Your task to perform on an android device: turn on translation in the chrome app Image 0: 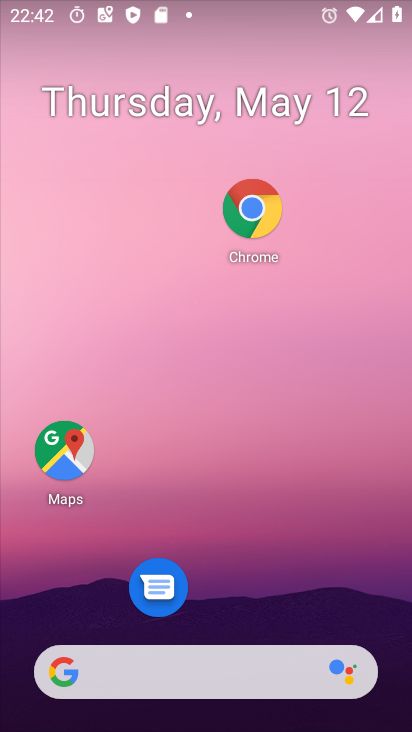
Step 0: drag from (318, 387) to (328, 3)
Your task to perform on an android device: turn on translation in the chrome app Image 1: 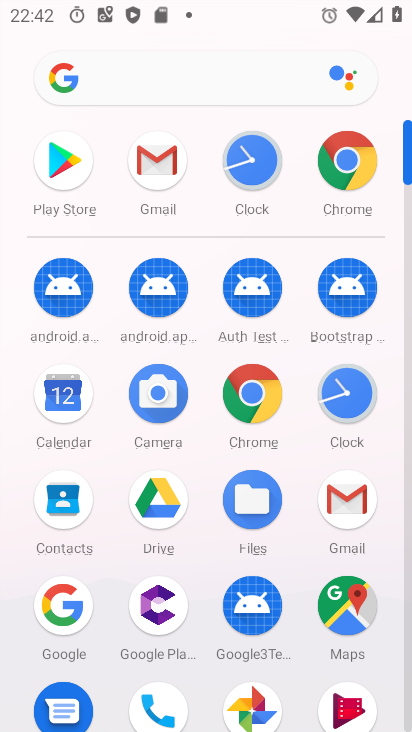
Step 1: click (342, 161)
Your task to perform on an android device: turn on translation in the chrome app Image 2: 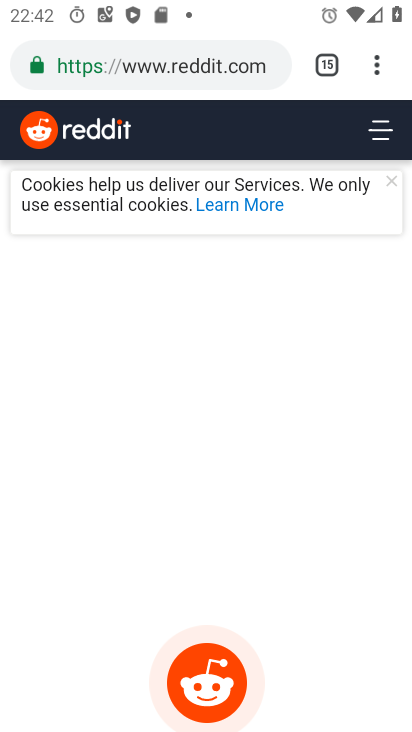
Step 2: click (360, 64)
Your task to perform on an android device: turn on translation in the chrome app Image 3: 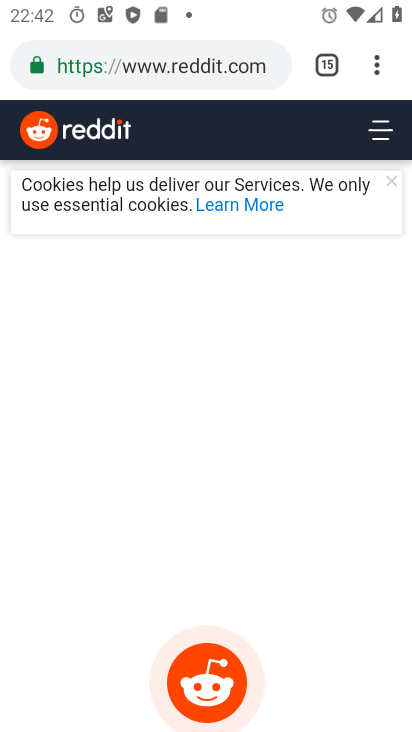
Step 3: click (356, 66)
Your task to perform on an android device: turn on translation in the chrome app Image 4: 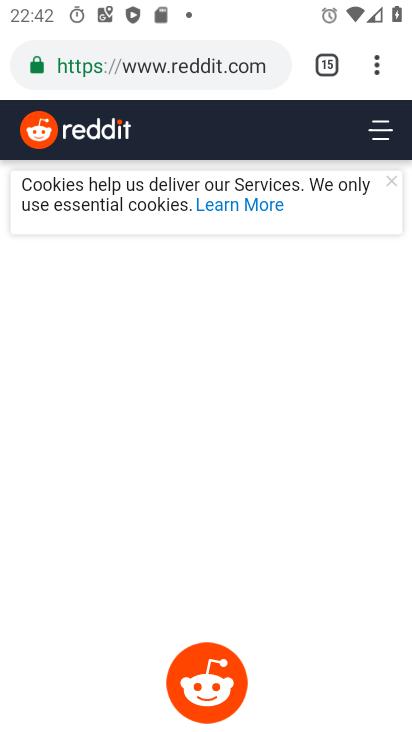
Step 4: click (368, 57)
Your task to perform on an android device: turn on translation in the chrome app Image 5: 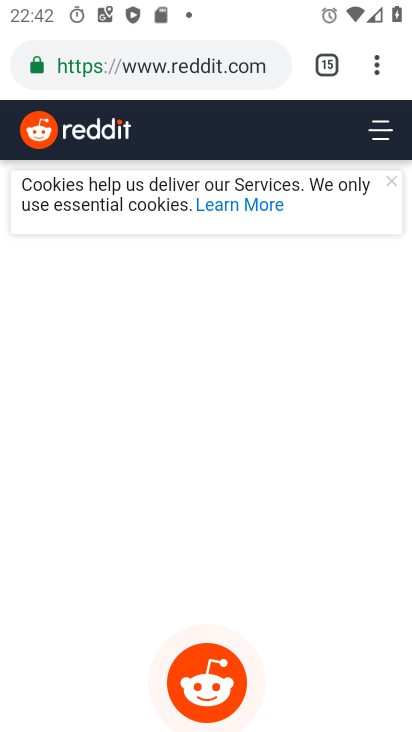
Step 5: click (368, 57)
Your task to perform on an android device: turn on translation in the chrome app Image 6: 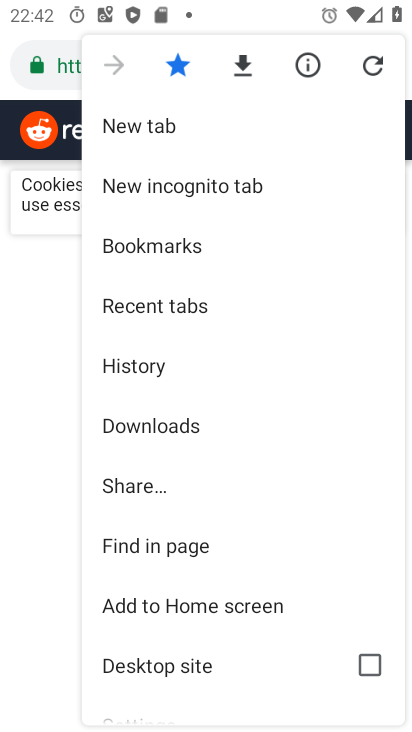
Step 6: drag from (227, 582) to (264, 178)
Your task to perform on an android device: turn on translation in the chrome app Image 7: 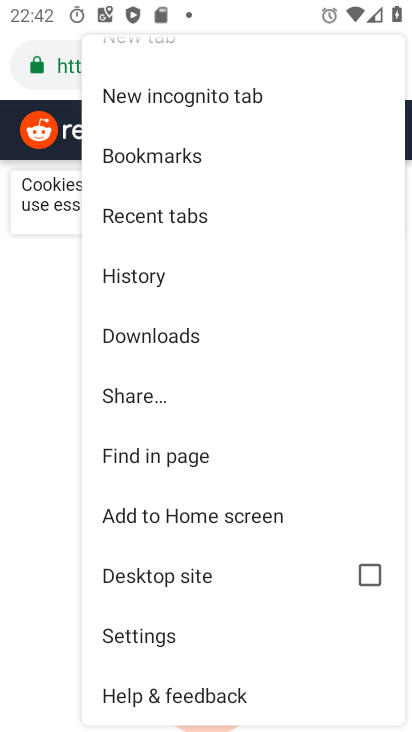
Step 7: click (158, 627)
Your task to perform on an android device: turn on translation in the chrome app Image 8: 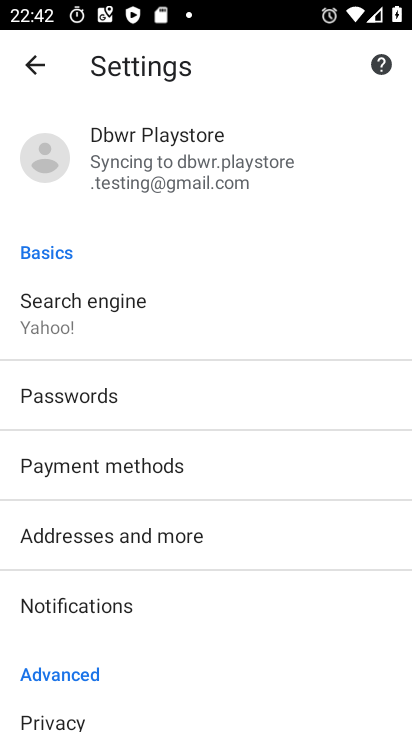
Step 8: drag from (232, 647) to (271, 154)
Your task to perform on an android device: turn on translation in the chrome app Image 9: 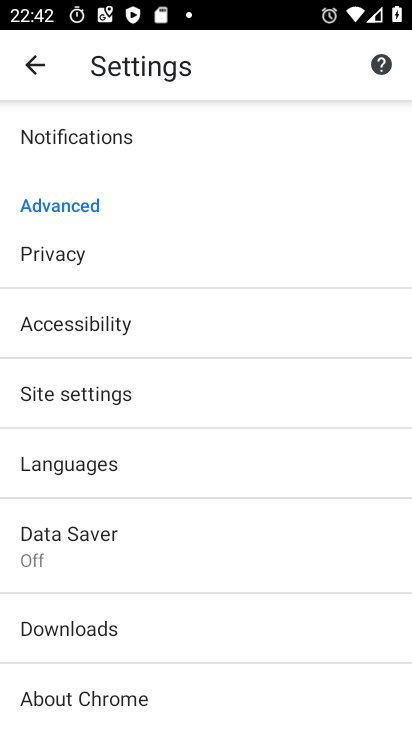
Step 9: click (113, 465)
Your task to perform on an android device: turn on translation in the chrome app Image 10: 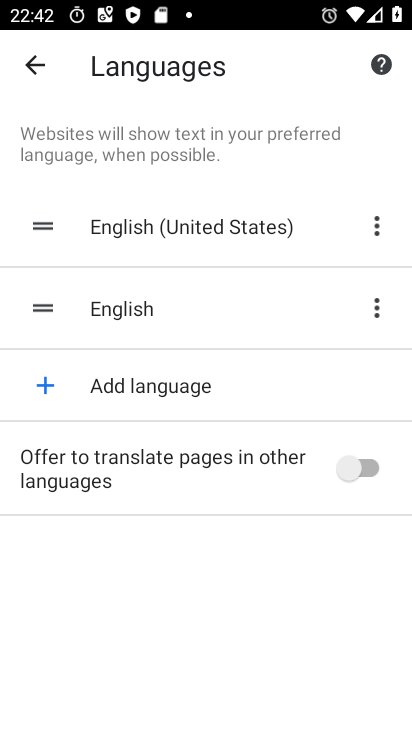
Step 10: click (351, 464)
Your task to perform on an android device: turn on translation in the chrome app Image 11: 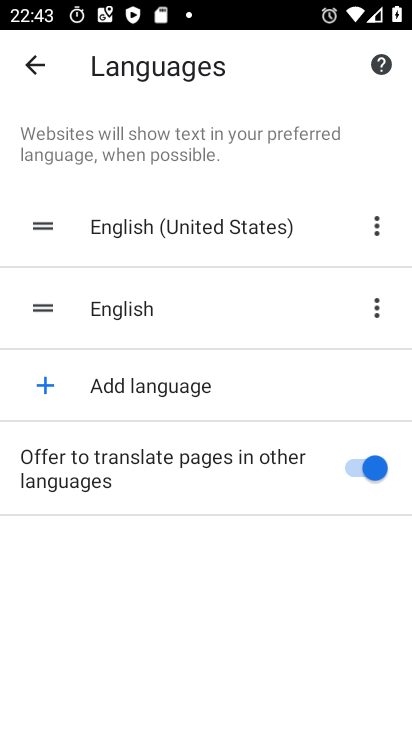
Step 11: task complete